Your task to perform on an android device: turn off data saver in the chrome app Image 0: 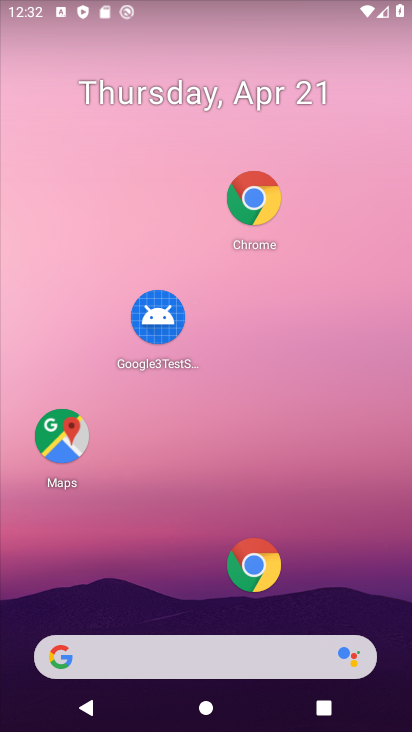
Step 0: click (241, 571)
Your task to perform on an android device: turn off data saver in the chrome app Image 1: 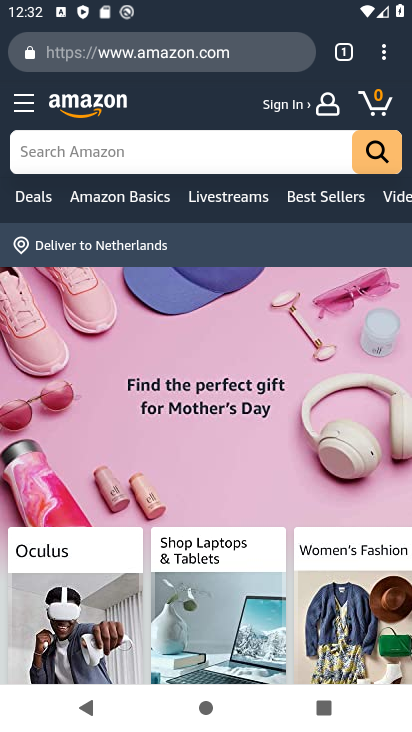
Step 1: click (381, 54)
Your task to perform on an android device: turn off data saver in the chrome app Image 2: 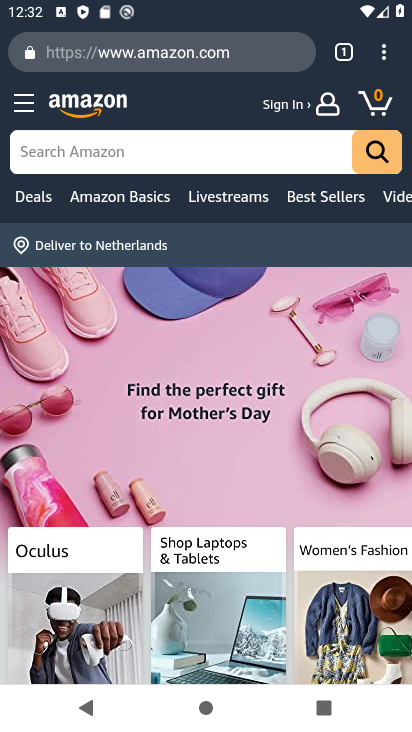
Step 2: click (398, 51)
Your task to perform on an android device: turn off data saver in the chrome app Image 3: 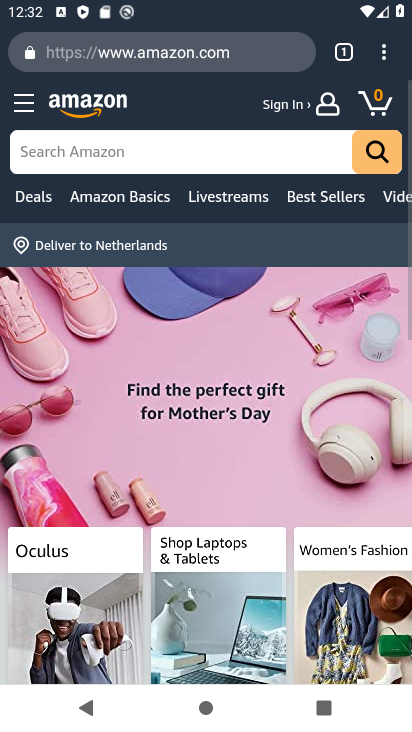
Step 3: click (380, 54)
Your task to perform on an android device: turn off data saver in the chrome app Image 4: 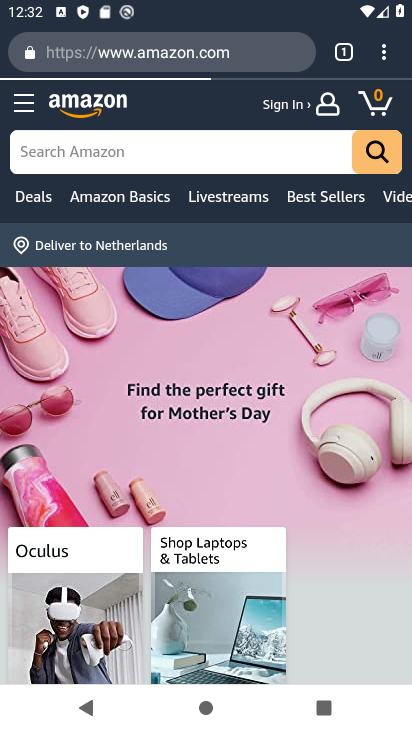
Step 4: click (386, 54)
Your task to perform on an android device: turn off data saver in the chrome app Image 5: 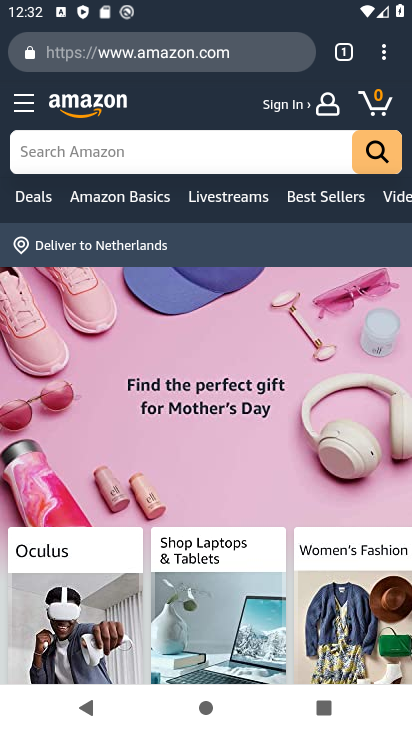
Step 5: click (383, 53)
Your task to perform on an android device: turn off data saver in the chrome app Image 6: 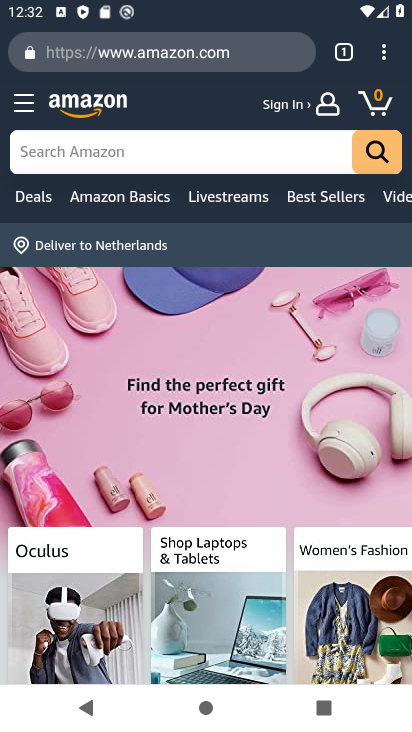
Step 6: click (390, 58)
Your task to perform on an android device: turn off data saver in the chrome app Image 7: 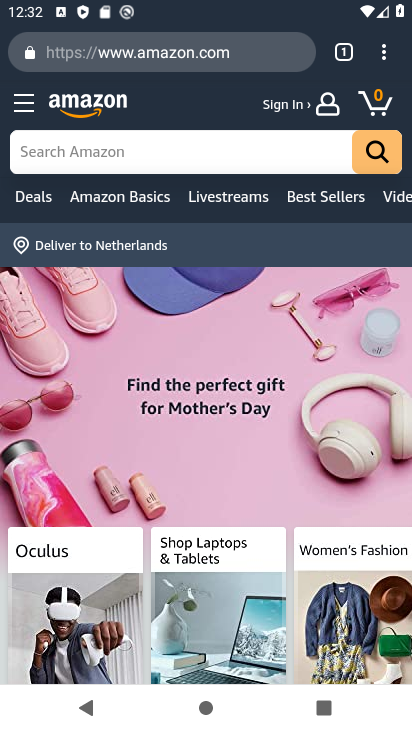
Step 7: click (380, 56)
Your task to perform on an android device: turn off data saver in the chrome app Image 8: 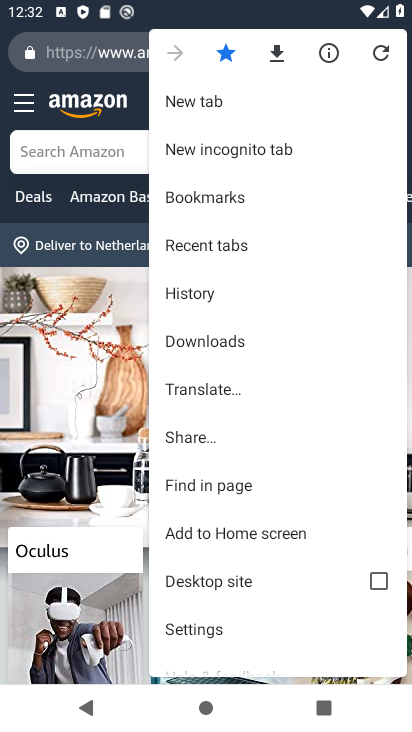
Step 8: click (220, 625)
Your task to perform on an android device: turn off data saver in the chrome app Image 9: 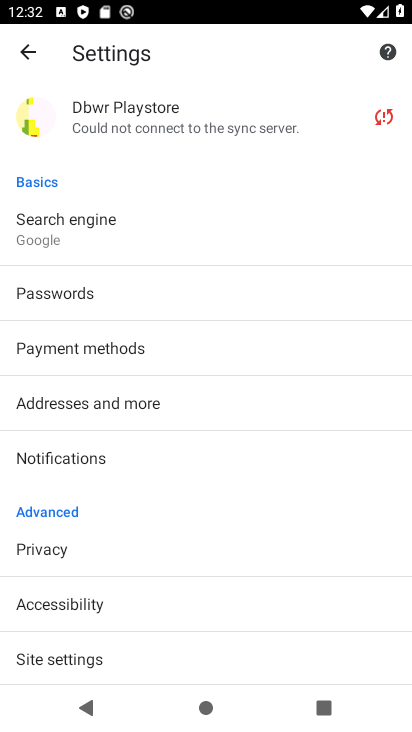
Step 9: drag from (132, 497) to (143, 310)
Your task to perform on an android device: turn off data saver in the chrome app Image 10: 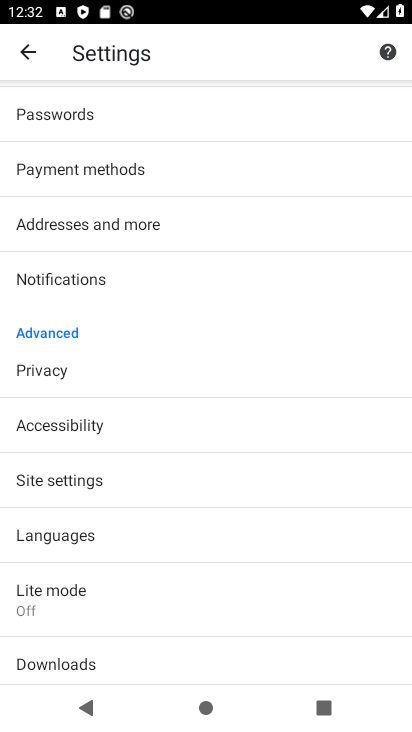
Step 10: click (107, 603)
Your task to perform on an android device: turn off data saver in the chrome app Image 11: 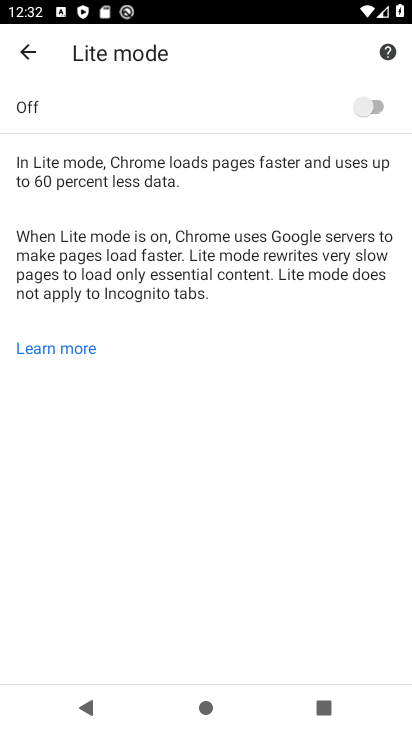
Step 11: task complete